Your task to perform on an android device: turn on wifi Image 0: 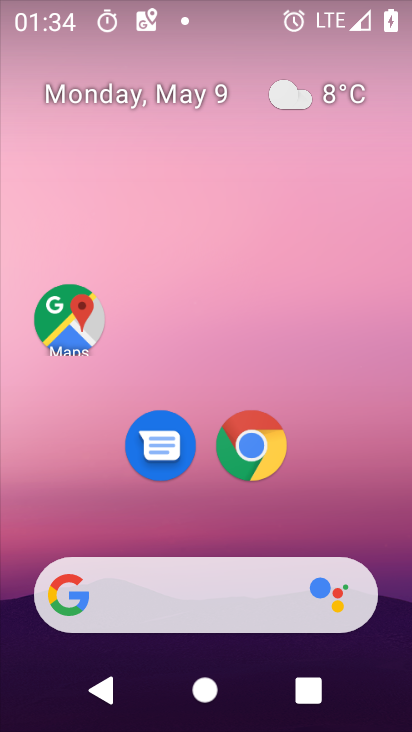
Step 0: drag from (392, 552) to (412, 37)
Your task to perform on an android device: turn on wifi Image 1: 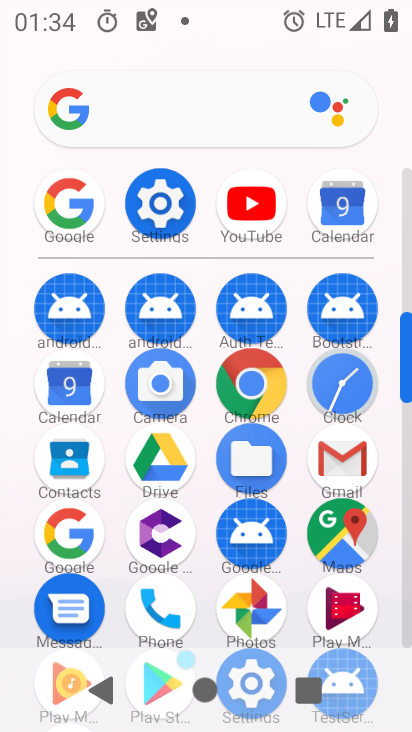
Step 1: click (167, 209)
Your task to perform on an android device: turn on wifi Image 2: 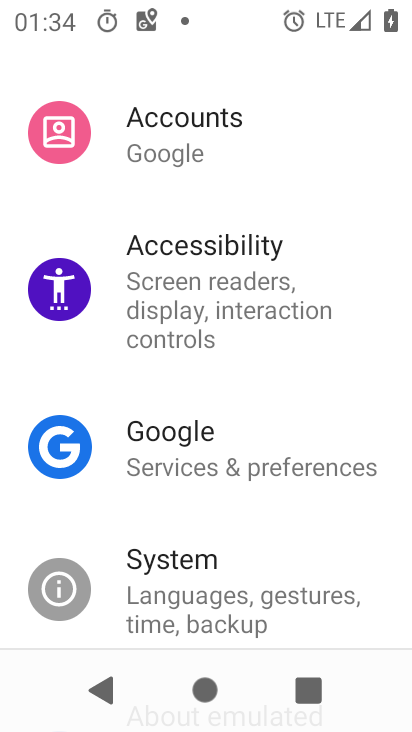
Step 2: drag from (322, 238) to (364, 525)
Your task to perform on an android device: turn on wifi Image 3: 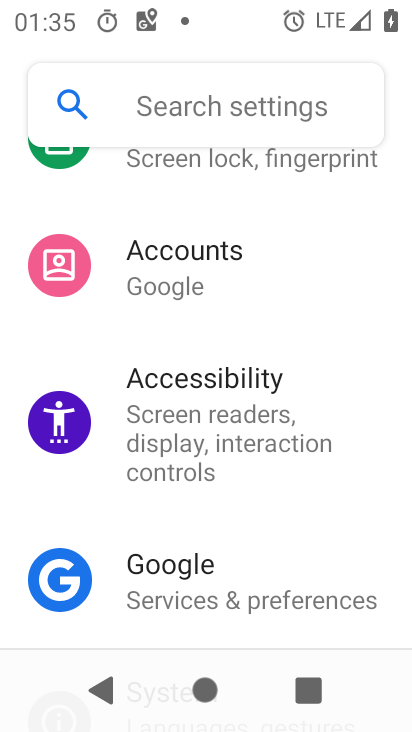
Step 3: drag from (314, 246) to (356, 543)
Your task to perform on an android device: turn on wifi Image 4: 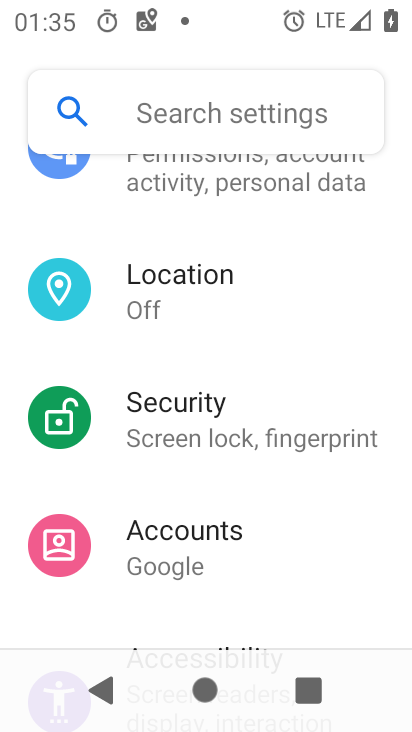
Step 4: drag from (301, 285) to (344, 555)
Your task to perform on an android device: turn on wifi Image 5: 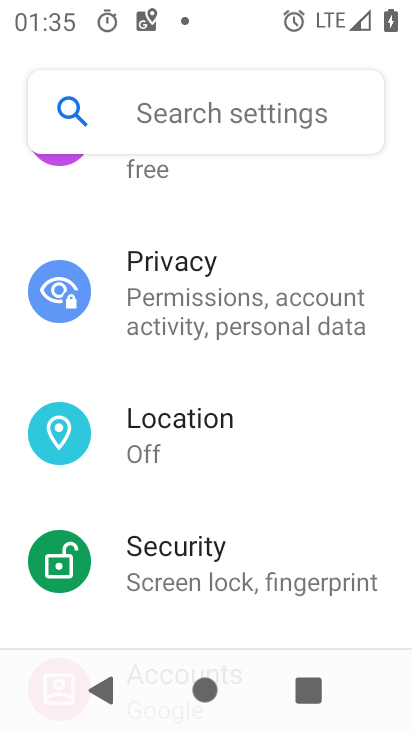
Step 5: drag from (326, 251) to (368, 582)
Your task to perform on an android device: turn on wifi Image 6: 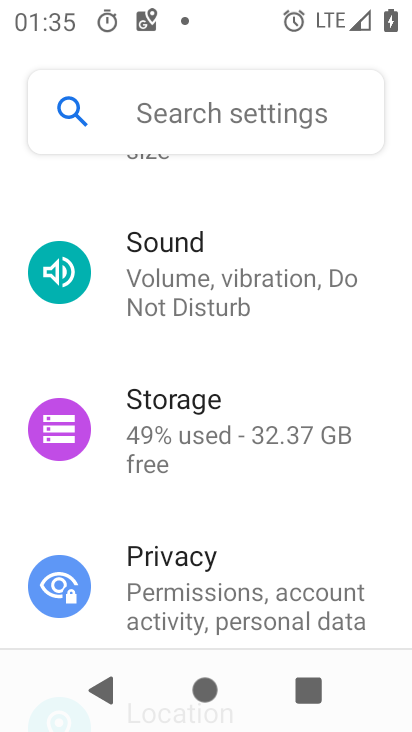
Step 6: drag from (352, 322) to (353, 597)
Your task to perform on an android device: turn on wifi Image 7: 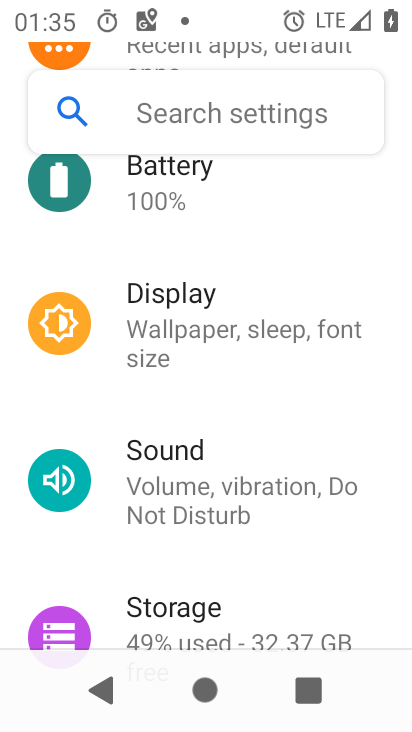
Step 7: drag from (312, 222) to (330, 523)
Your task to perform on an android device: turn on wifi Image 8: 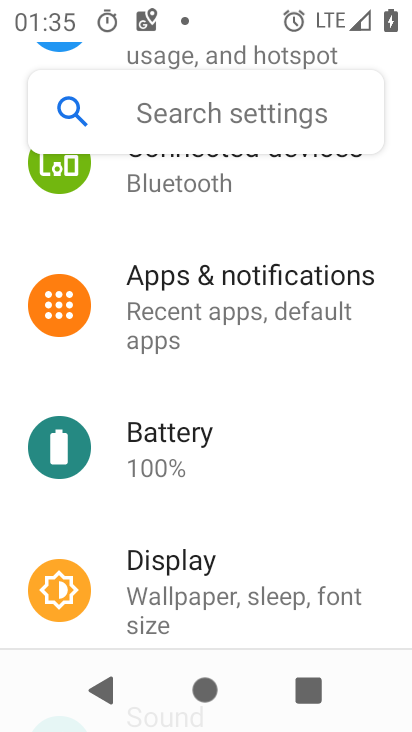
Step 8: drag from (294, 246) to (322, 552)
Your task to perform on an android device: turn on wifi Image 9: 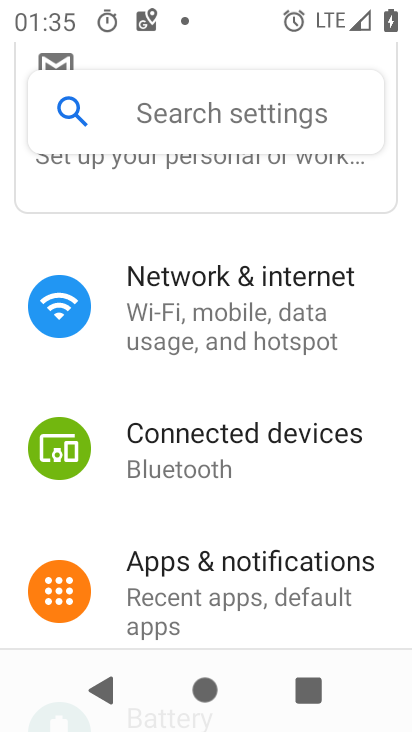
Step 9: click (201, 325)
Your task to perform on an android device: turn on wifi Image 10: 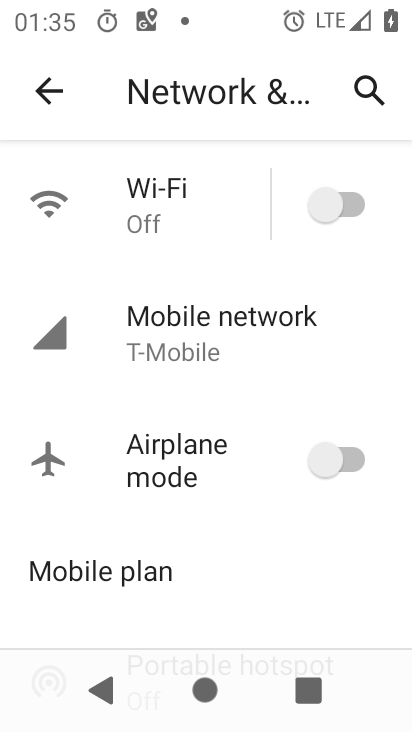
Step 10: click (318, 211)
Your task to perform on an android device: turn on wifi Image 11: 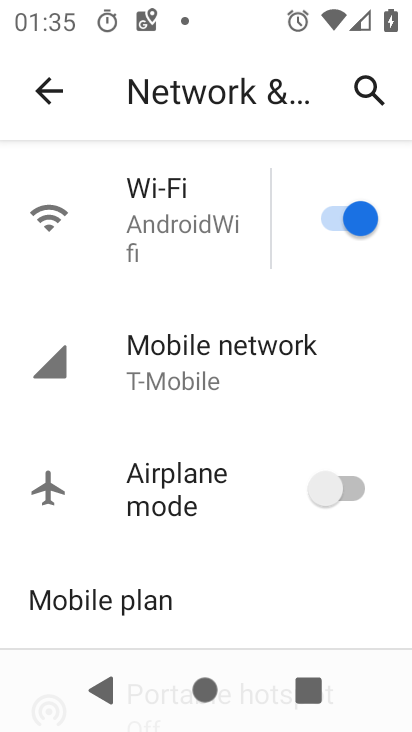
Step 11: task complete